Your task to perform on an android device: Open ESPN.com Image 0: 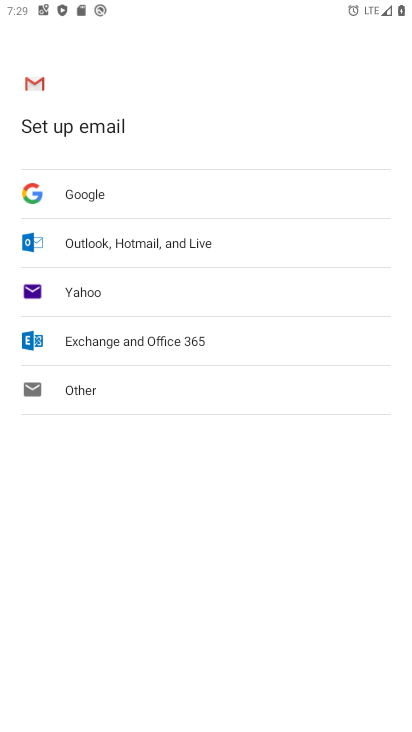
Step 0: press home button
Your task to perform on an android device: Open ESPN.com Image 1: 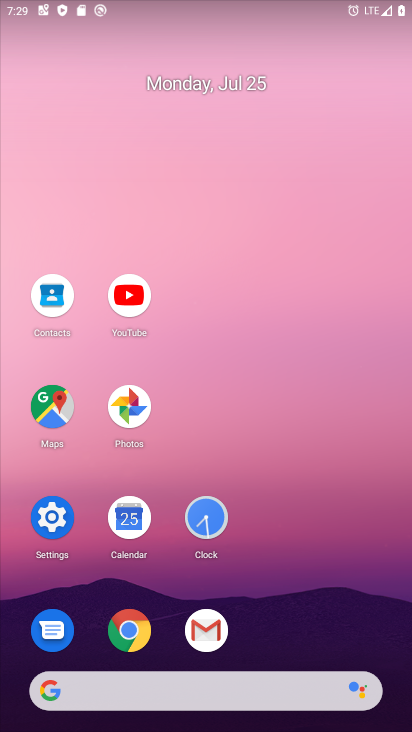
Step 1: click (132, 633)
Your task to perform on an android device: Open ESPN.com Image 2: 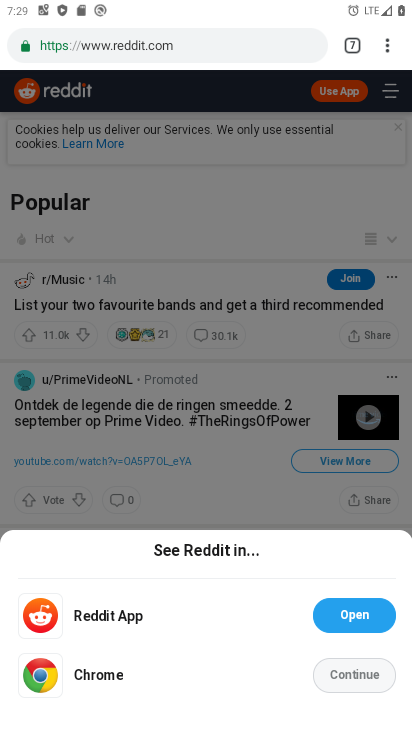
Step 2: click (392, 50)
Your task to perform on an android device: Open ESPN.com Image 3: 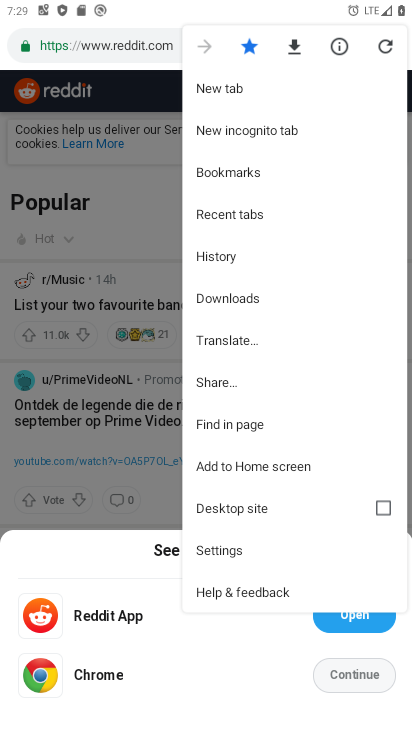
Step 3: click (227, 87)
Your task to perform on an android device: Open ESPN.com Image 4: 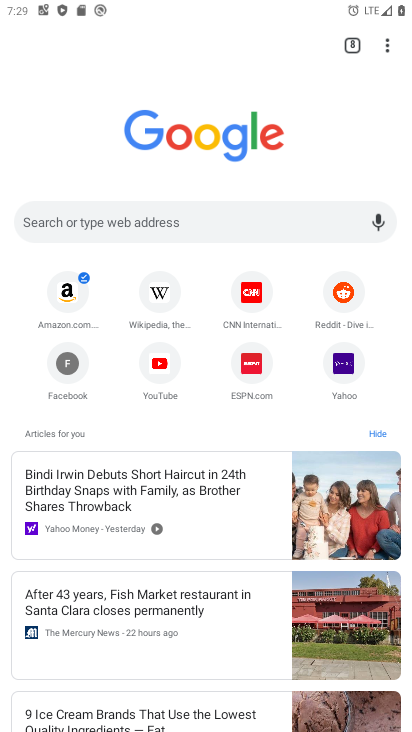
Step 4: click (258, 372)
Your task to perform on an android device: Open ESPN.com Image 5: 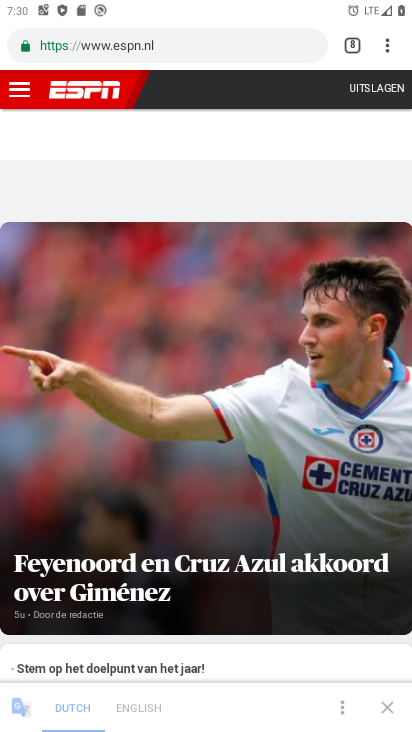
Step 5: task complete